Your task to perform on an android device: toggle pop-ups in chrome Image 0: 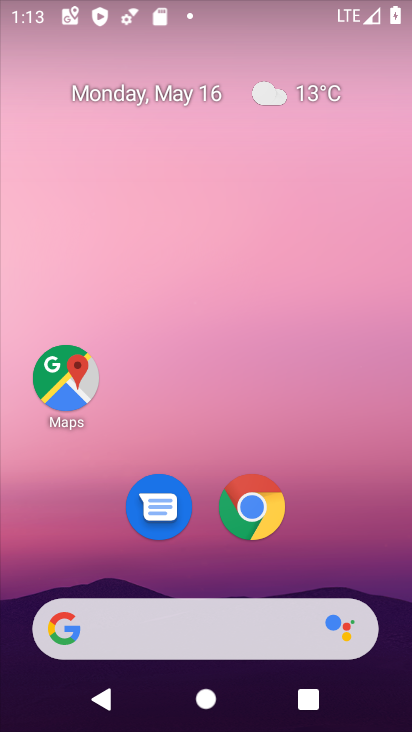
Step 0: click (234, 503)
Your task to perform on an android device: toggle pop-ups in chrome Image 1: 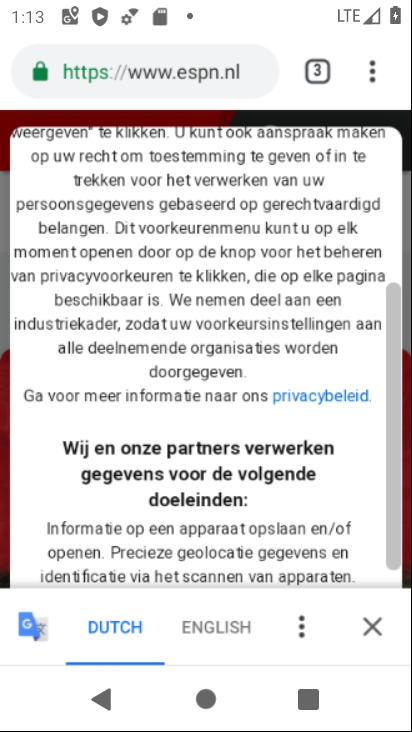
Step 1: click (364, 75)
Your task to perform on an android device: toggle pop-ups in chrome Image 2: 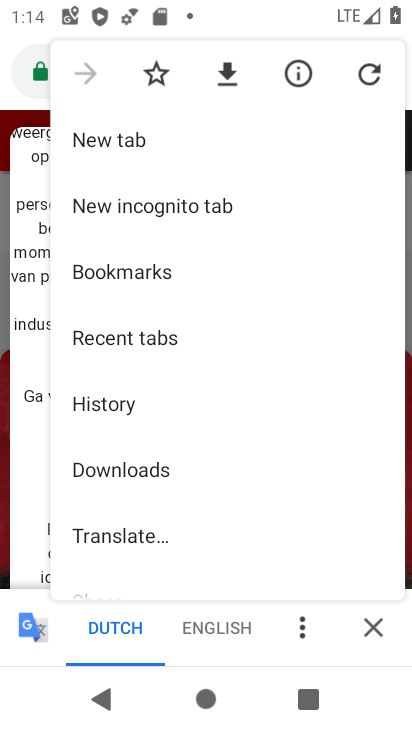
Step 2: drag from (219, 494) to (200, 141)
Your task to perform on an android device: toggle pop-ups in chrome Image 3: 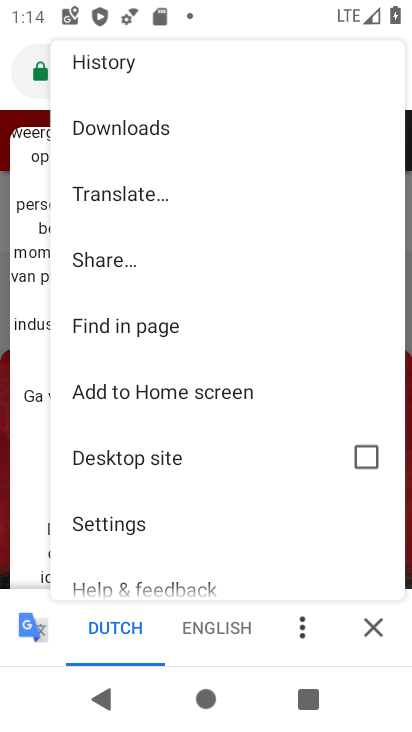
Step 3: click (178, 529)
Your task to perform on an android device: toggle pop-ups in chrome Image 4: 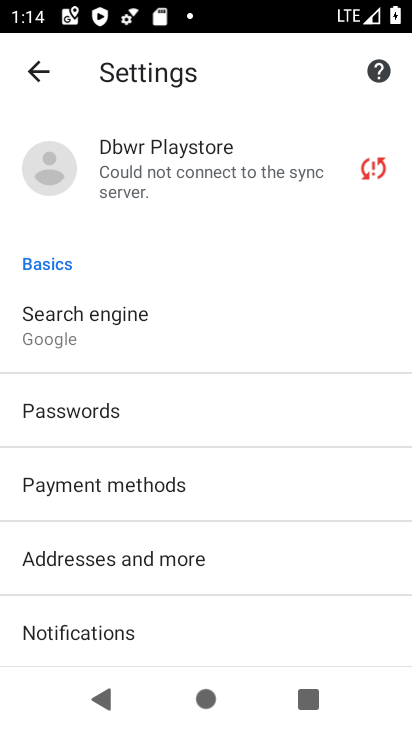
Step 4: drag from (238, 546) to (216, 261)
Your task to perform on an android device: toggle pop-ups in chrome Image 5: 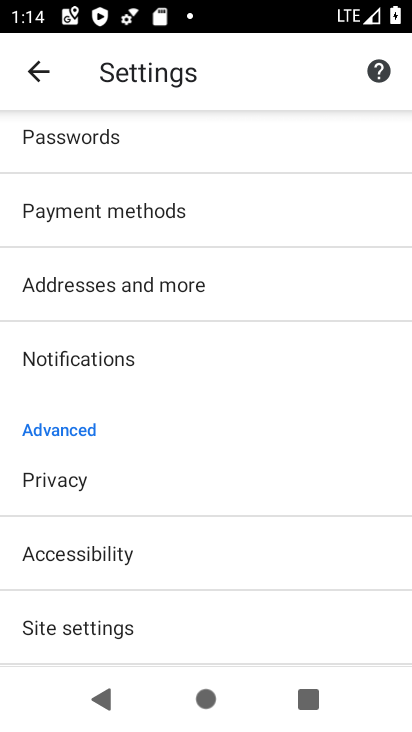
Step 5: drag from (184, 546) to (173, 342)
Your task to perform on an android device: toggle pop-ups in chrome Image 6: 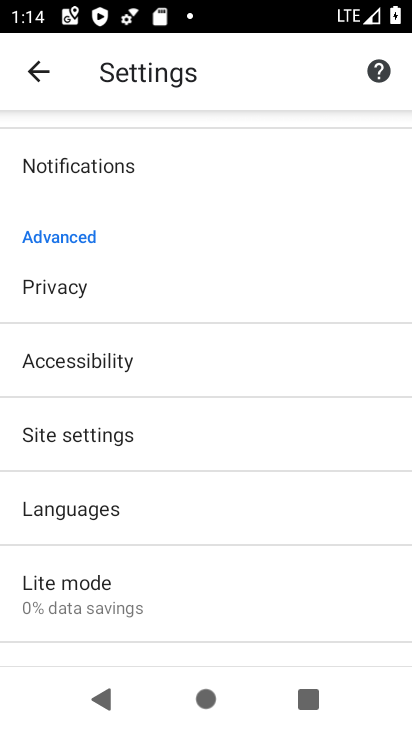
Step 6: click (126, 450)
Your task to perform on an android device: toggle pop-ups in chrome Image 7: 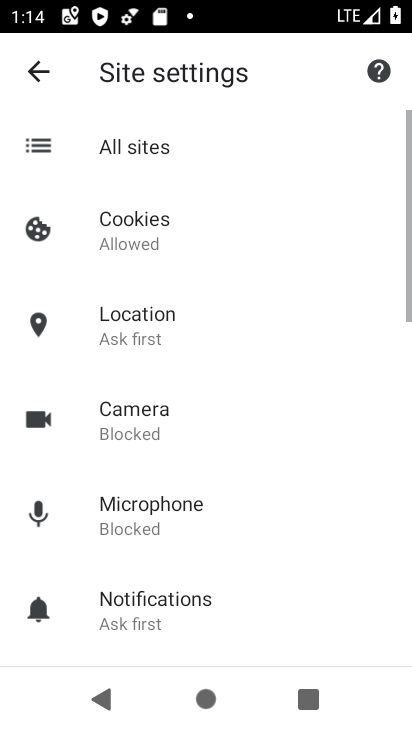
Step 7: drag from (203, 504) to (201, 151)
Your task to perform on an android device: toggle pop-ups in chrome Image 8: 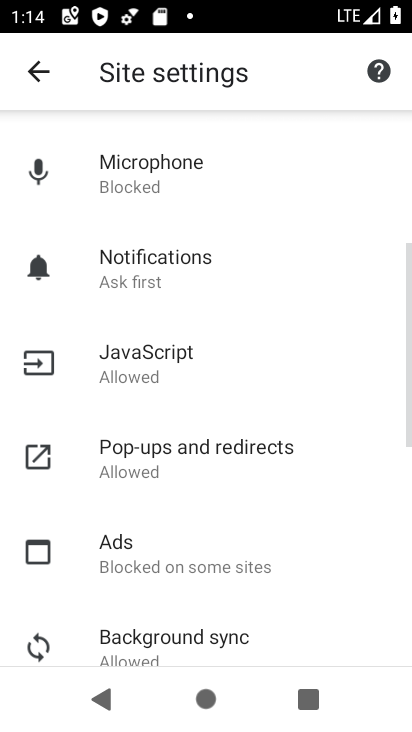
Step 8: click (190, 441)
Your task to perform on an android device: toggle pop-ups in chrome Image 9: 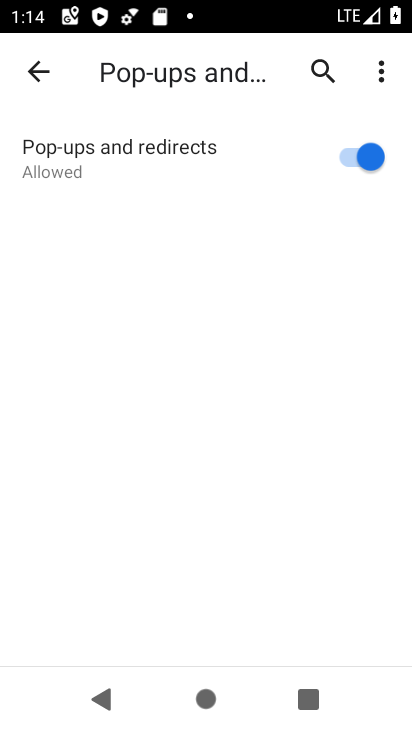
Step 9: click (375, 160)
Your task to perform on an android device: toggle pop-ups in chrome Image 10: 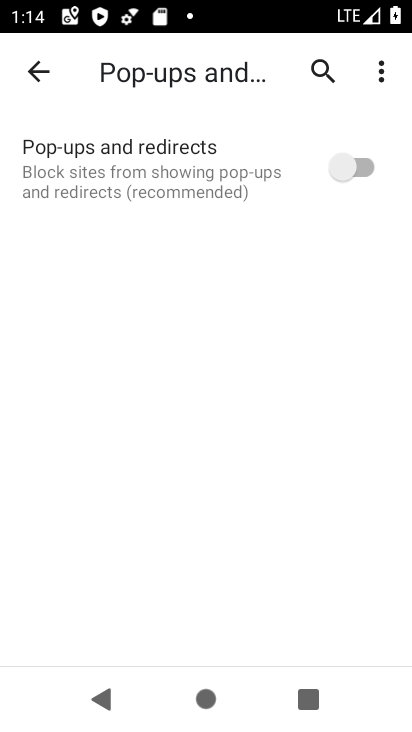
Step 10: task complete